Your task to perform on an android device: Clear all items from cart on target.com. Add usb-c to the cart on target.com Image 0: 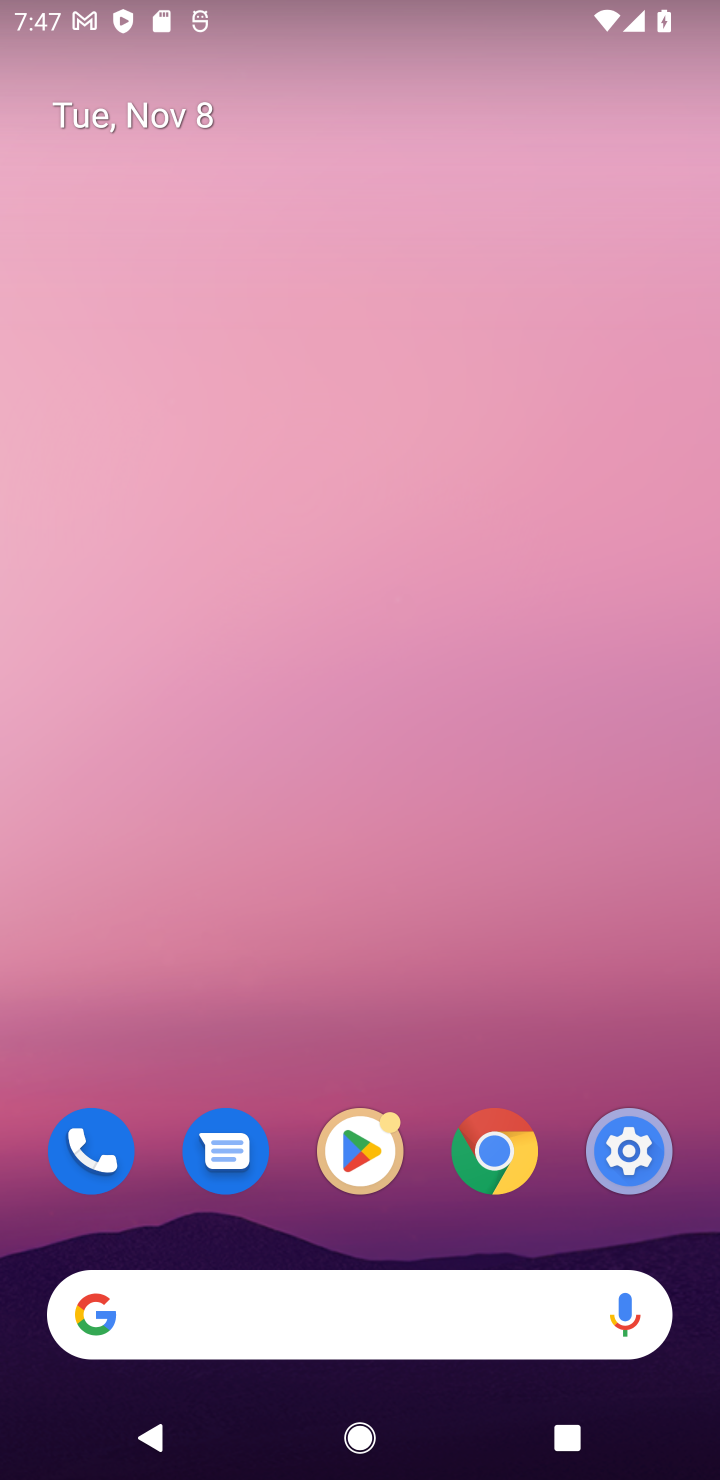
Step 0: click (333, 1281)
Your task to perform on an android device: Clear all items from cart on target.com. Add usb-c to the cart on target.com Image 1: 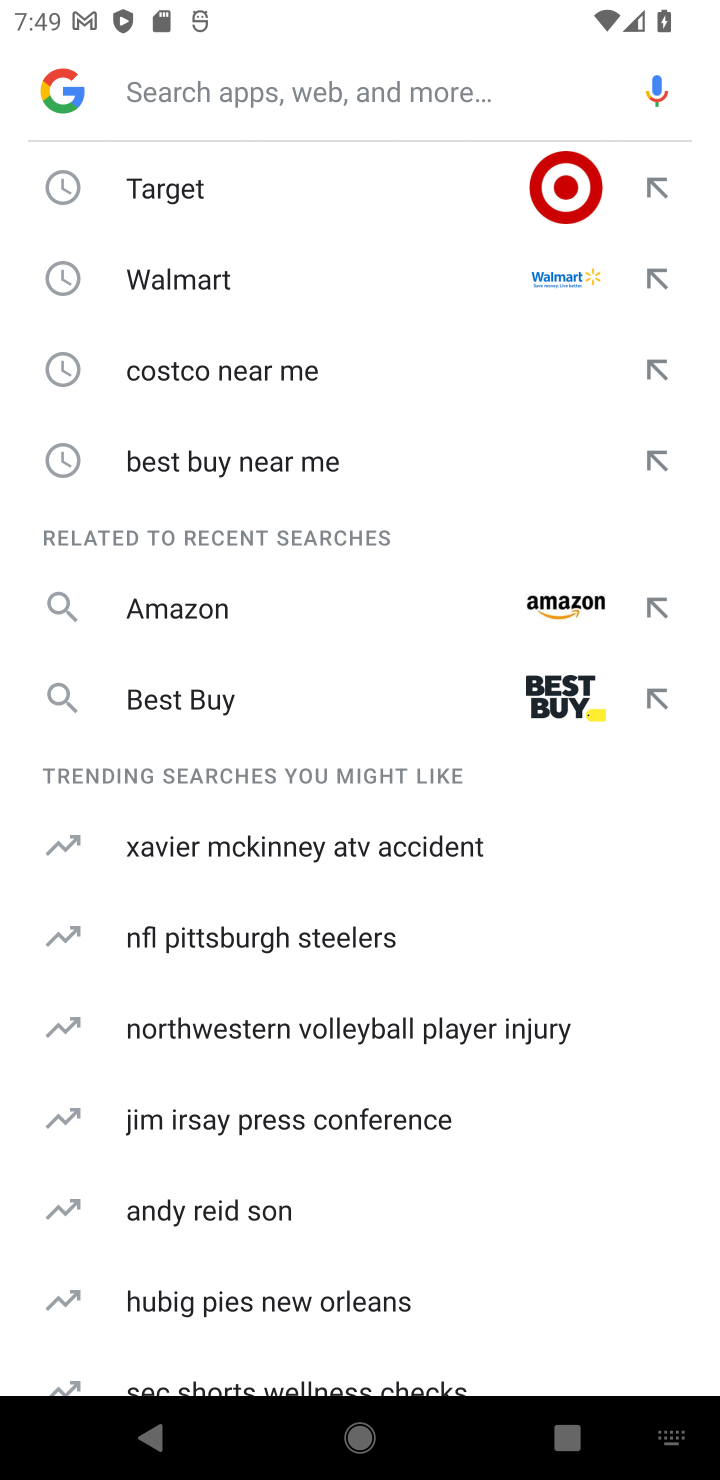
Step 1: click (332, 210)
Your task to perform on an android device: Clear all items from cart on target.com. Add usb-c to the cart on target.com Image 2: 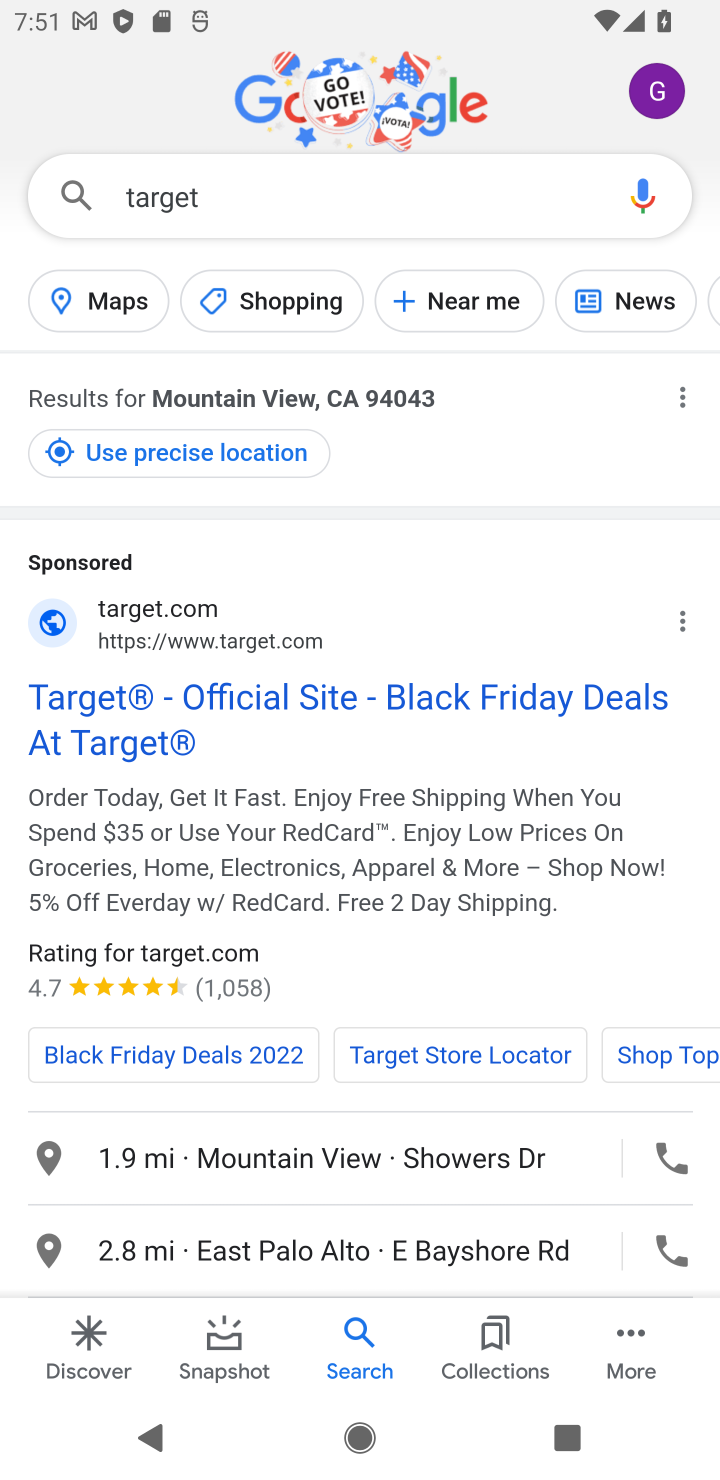
Step 2: click (132, 696)
Your task to perform on an android device: Clear all items from cart on target.com. Add usb-c to the cart on target.com Image 3: 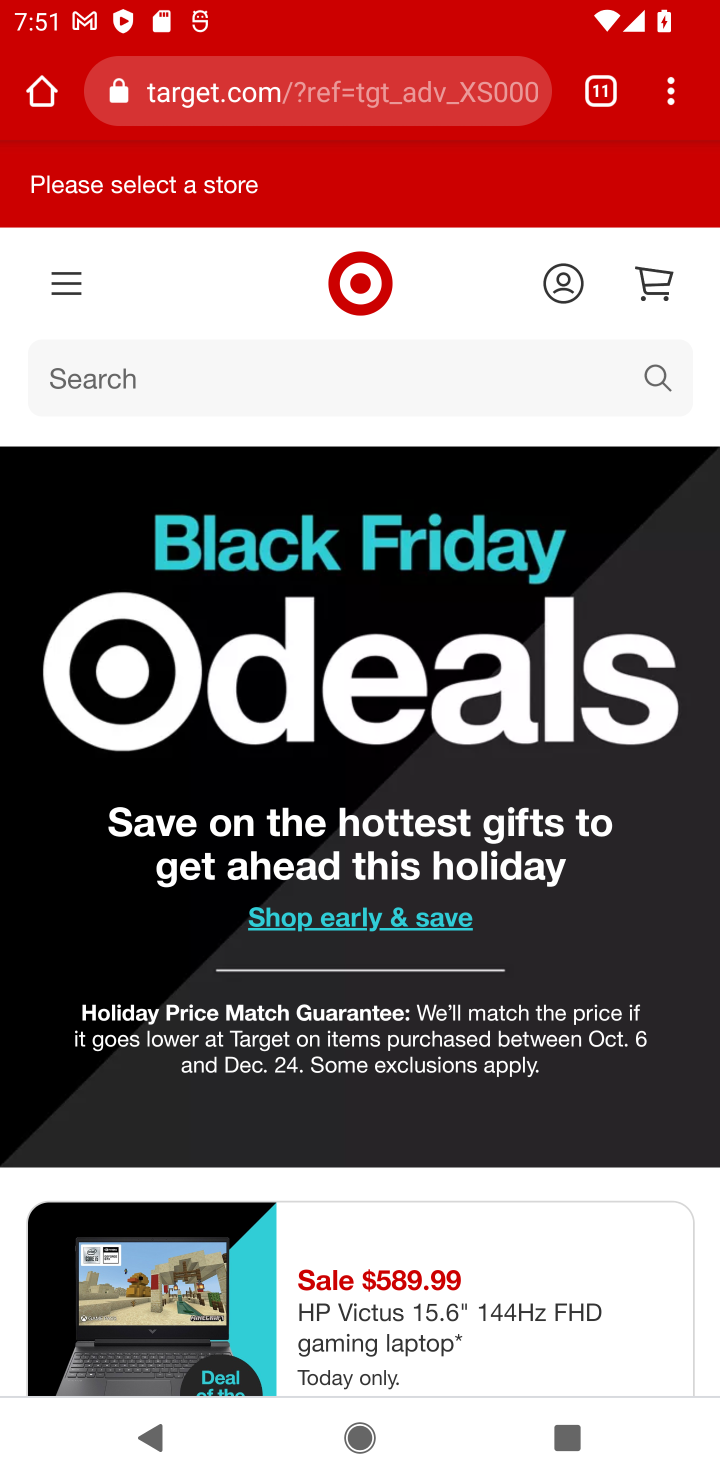
Step 3: task complete